Your task to perform on an android device: stop showing notifications on the lock screen Image 0: 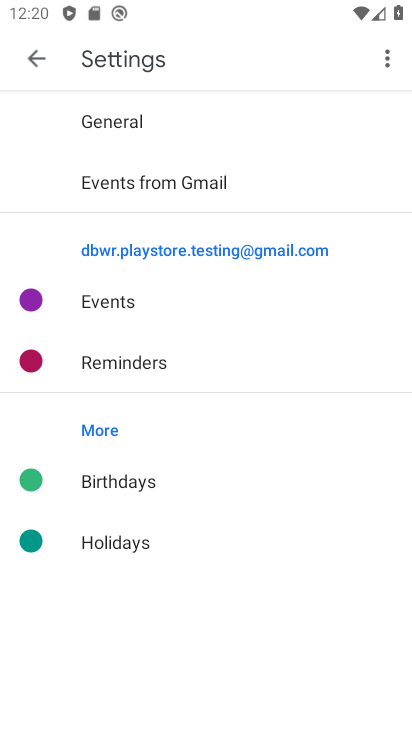
Step 0: press back button
Your task to perform on an android device: stop showing notifications on the lock screen Image 1: 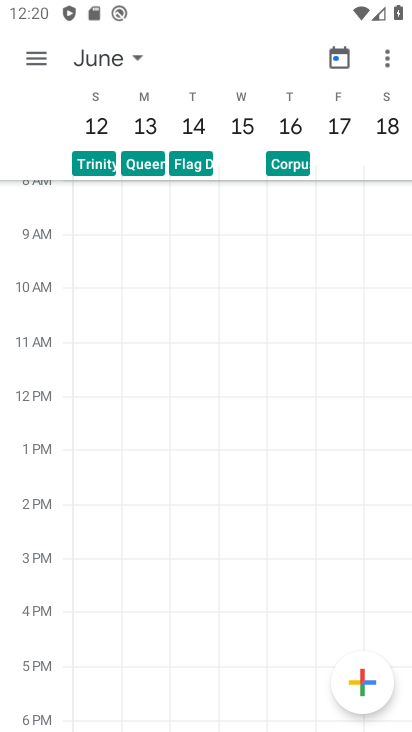
Step 1: press home button
Your task to perform on an android device: stop showing notifications on the lock screen Image 2: 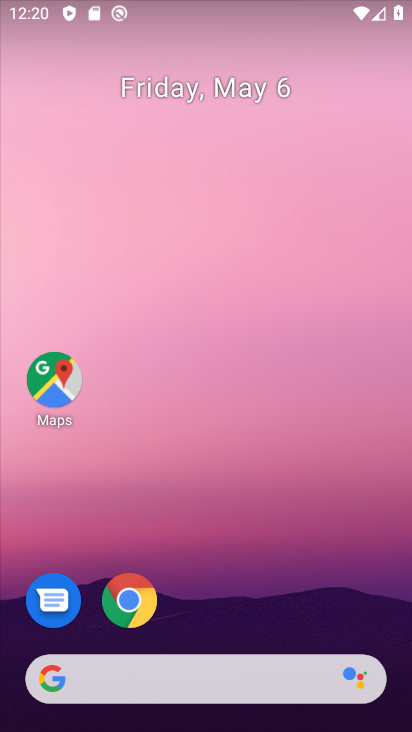
Step 2: drag from (190, 652) to (267, 71)
Your task to perform on an android device: stop showing notifications on the lock screen Image 3: 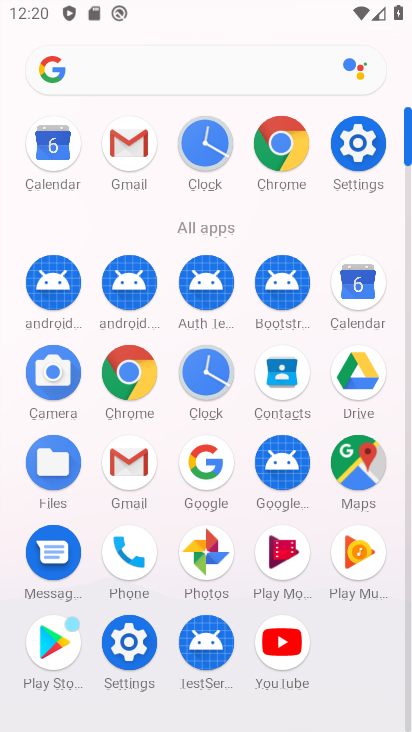
Step 3: click (109, 646)
Your task to perform on an android device: stop showing notifications on the lock screen Image 4: 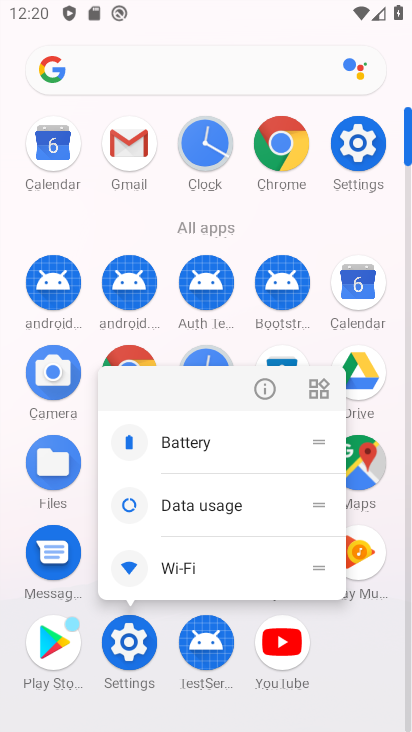
Step 4: click (146, 638)
Your task to perform on an android device: stop showing notifications on the lock screen Image 5: 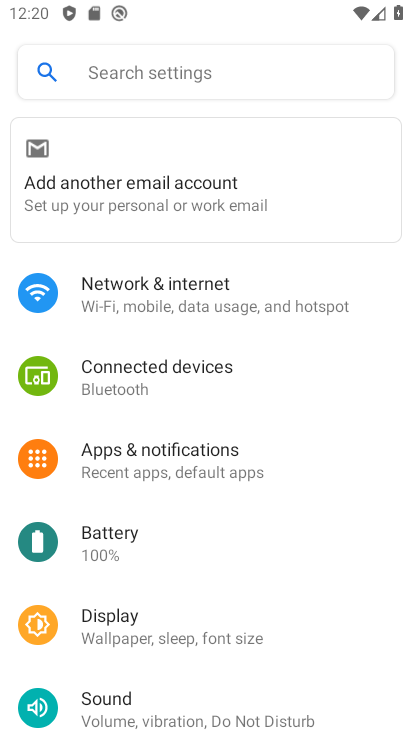
Step 5: click (202, 462)
Your task to perform on an android device: stop showing notifications on the lock screen Image 6: 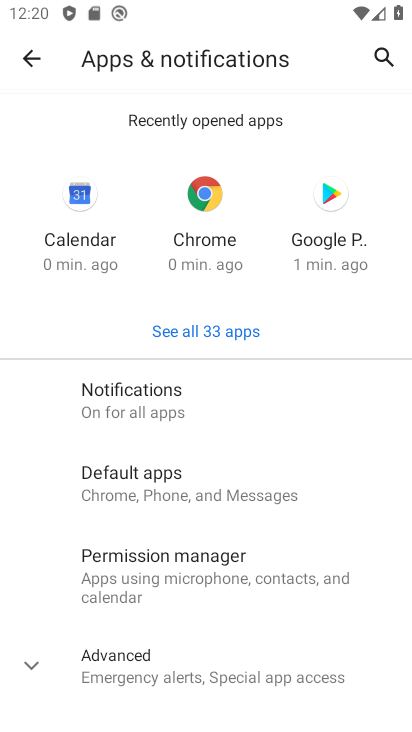
Step 6: click (187, 410)
Your task to perform on an android device: stop showing notifications on the lock screen Image 7: 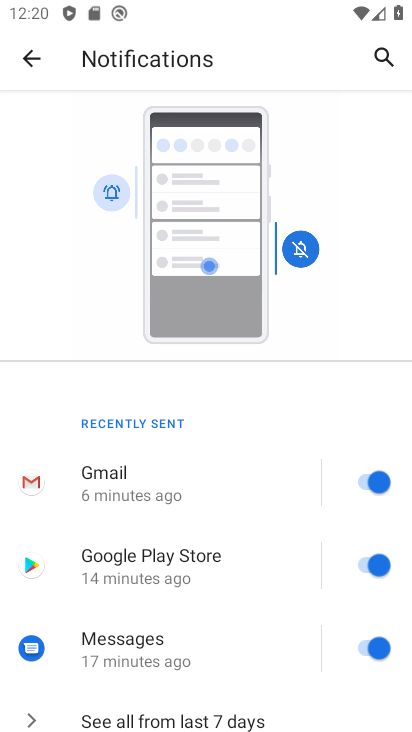
Step 7: drag from (170, 690) to (251, 248)
Your task to perform on an android device: stop showing notifications on the lock screen Image 8: 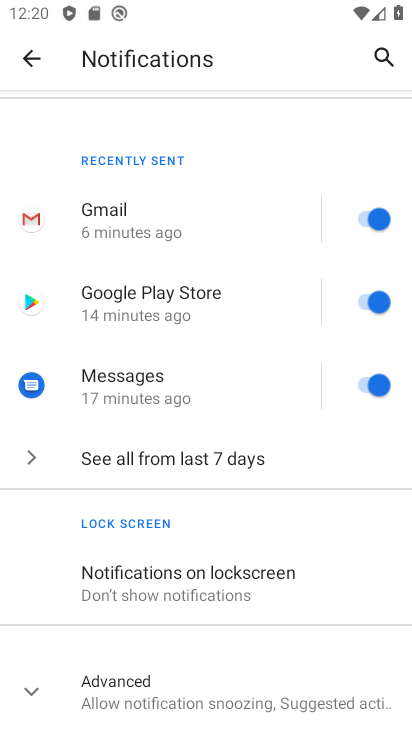
Step 8: click (187, 592)
Your task to perform on an android device: stop showing notifications on the lock screen Image 9: 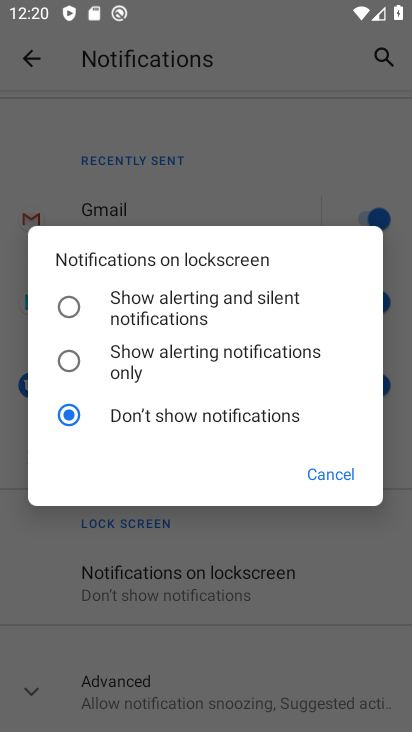
Step 9: task complete